Your task to perform on an android device: remove spam from my inbox in the gmail app Image 0: 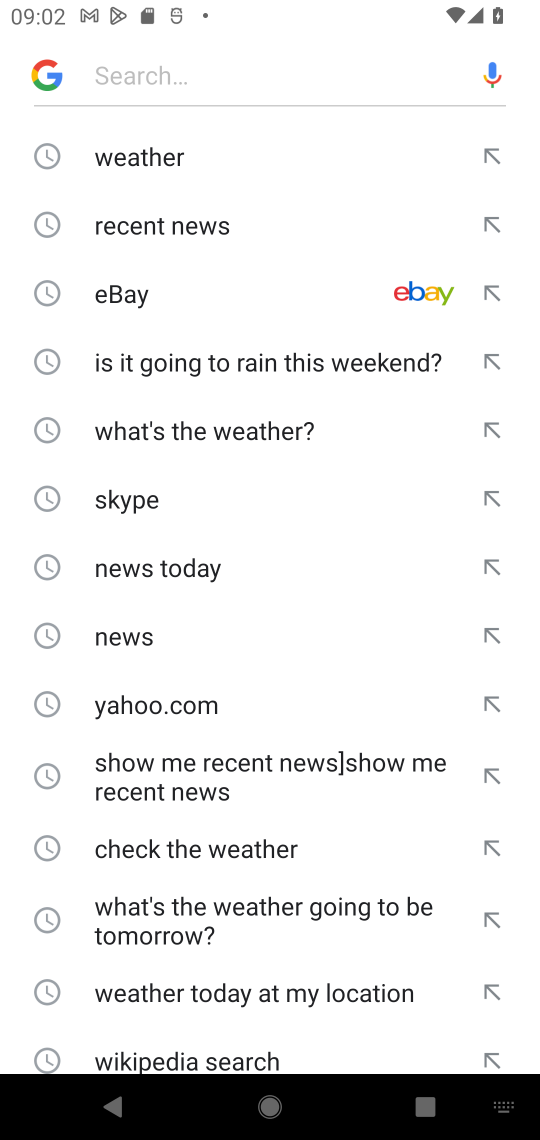
Step 0: press home button
Your task to perform on an android device: remove spam from my inbox in the gmail app Image 1: 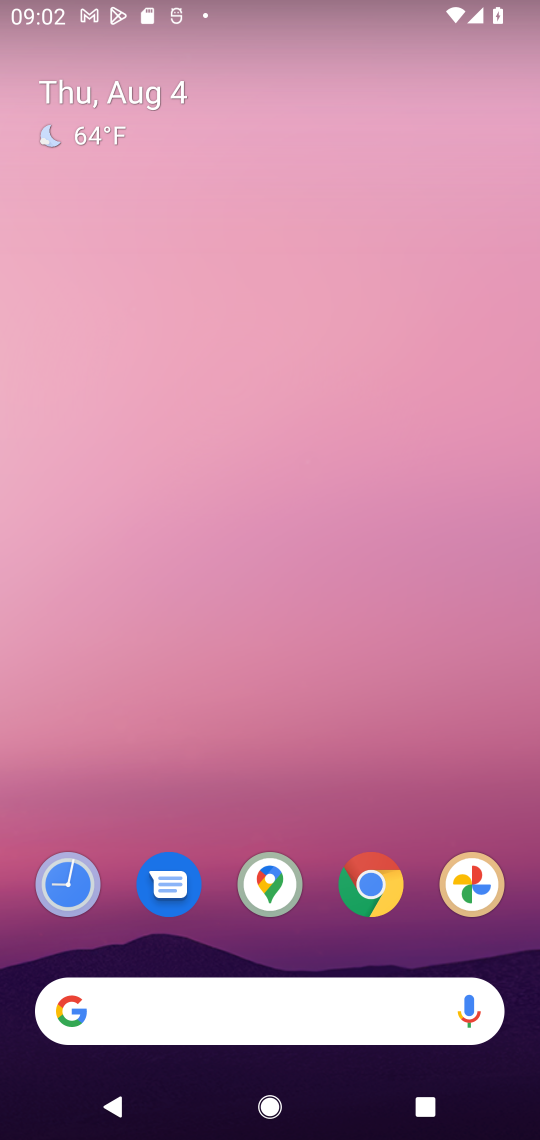
Step 1: drag from (332, 859) to (316, 113)
Your task to perform on an android device: remove spam from my inbox in the gmail app Image 2: 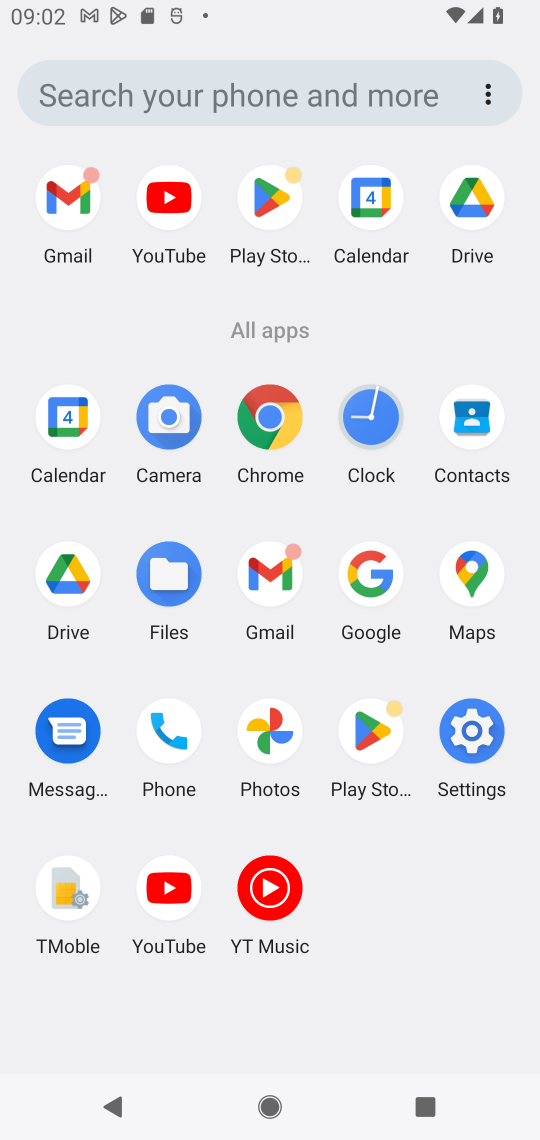
Step 2: click (284, 567)
Your task to perform on an android device: remove spam from my inbox in the gmail app Image 3: 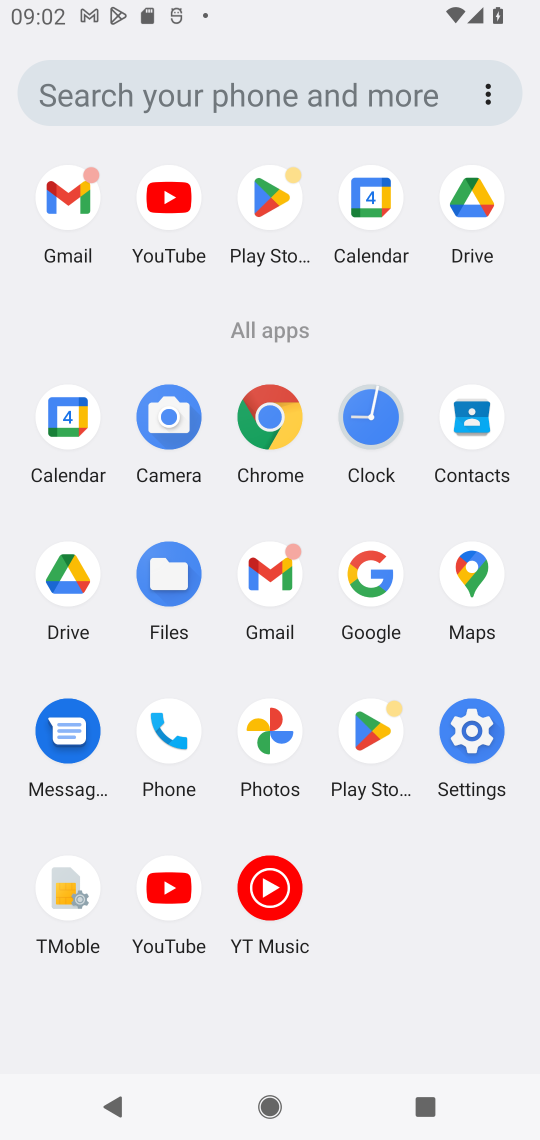
Step 3: click (284, 567)
Your task to perform on an android device: remove spam from my inbox in the gmail app Image 4: 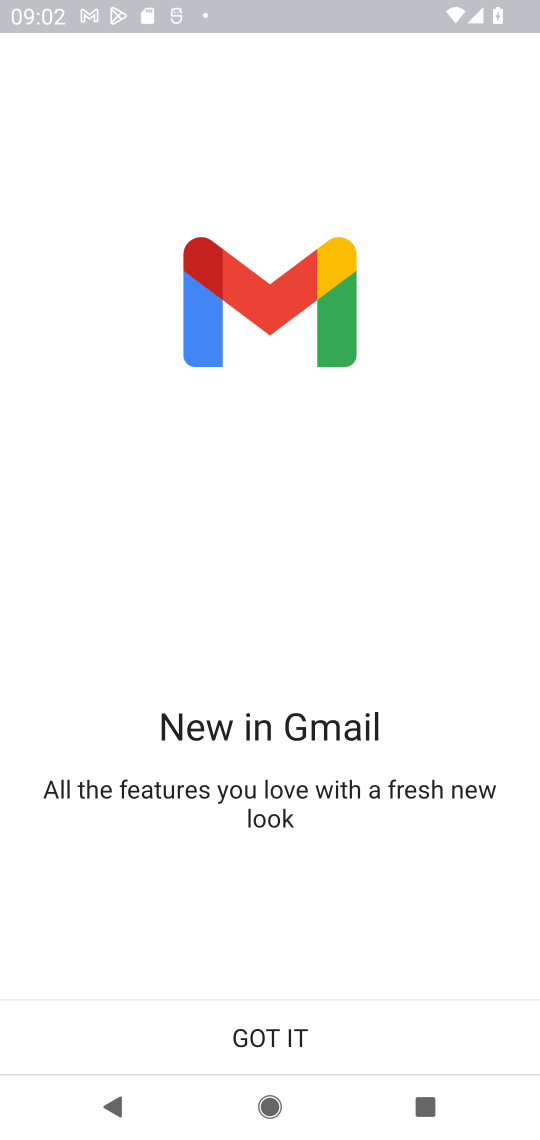
Step 4: click (366, 1044)
Your task to perform on an android device: remove spam from my inbox in the gmail app Image 5: 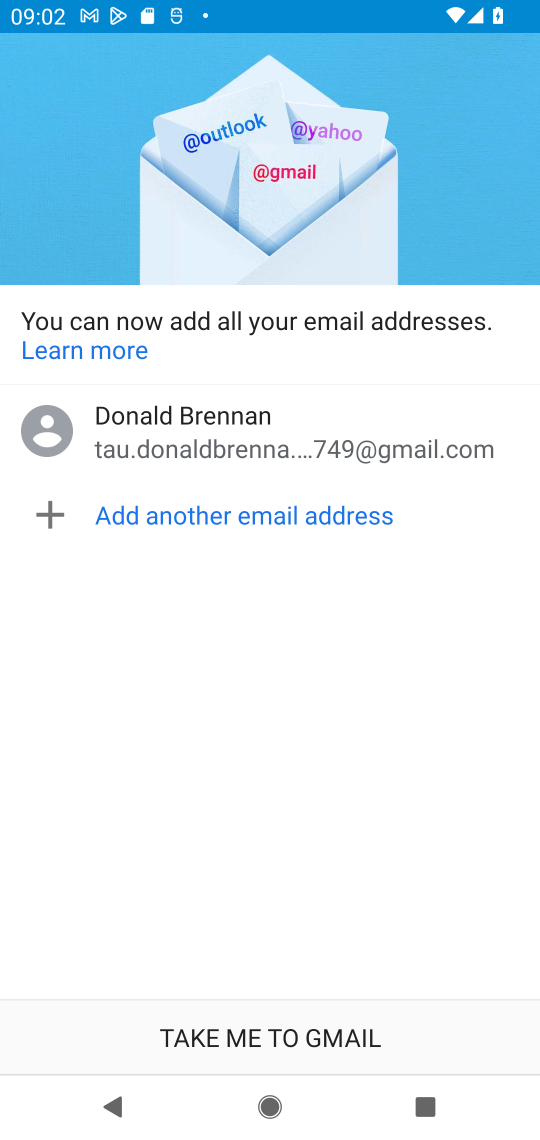
Step 5: click (366, 1044)
Your task to perform on an android device: remove spam from my inbox in the gmail app Image 6: 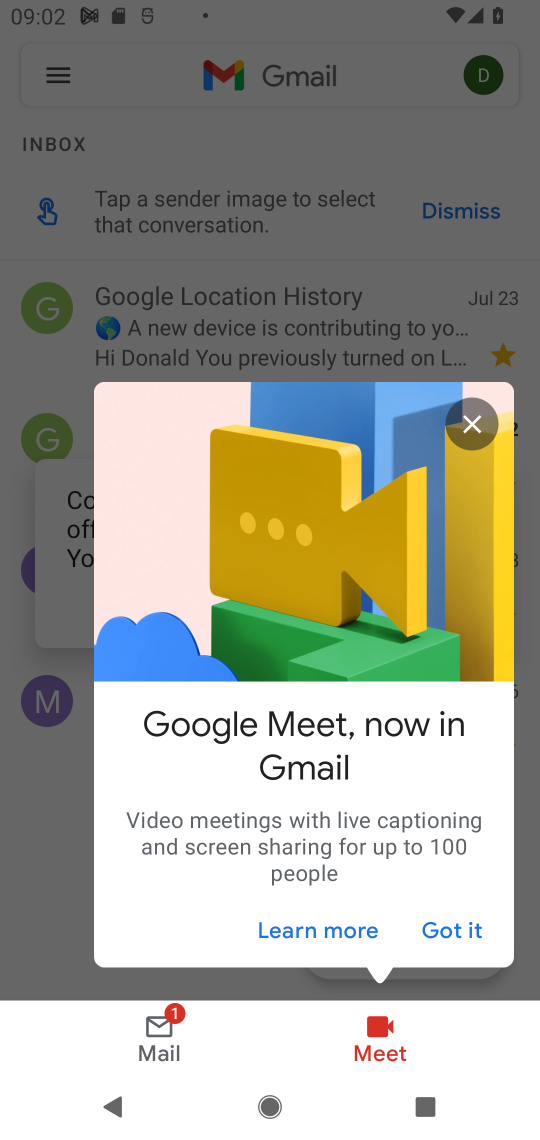
Step 6: click (452, 927)
Your task to perform on an android device: remove spam from my inbox in the gmail app Image 7: 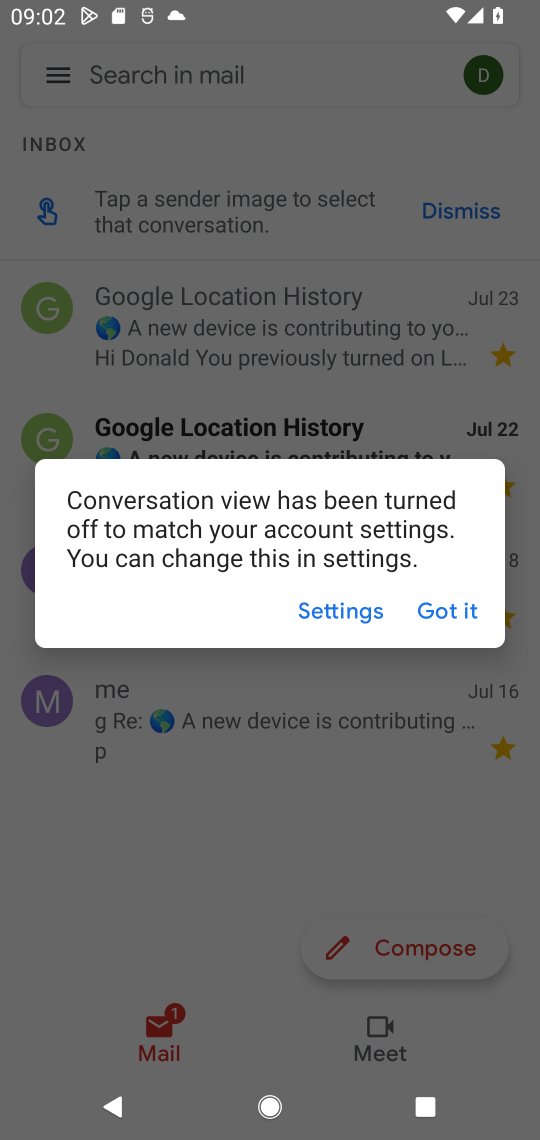
Step 7: click (453, 613)
Your task to perform on an android device: remove spam from my inbox in the gmail app Image 8: 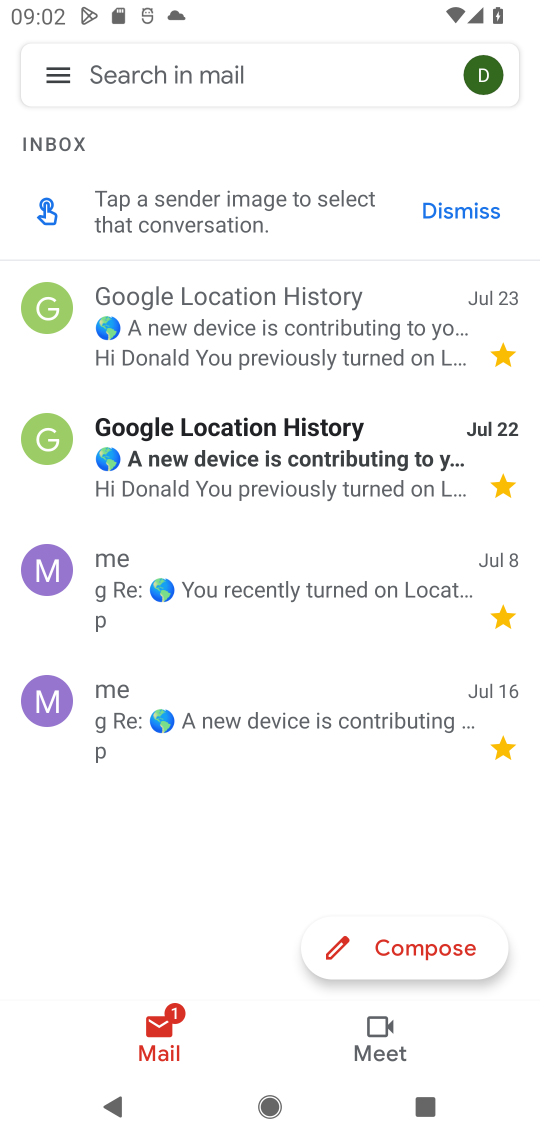
Step 8: click (54, 74)
Your task to perform on an android device: remove spam from my inbox in the gmail app Image 9: 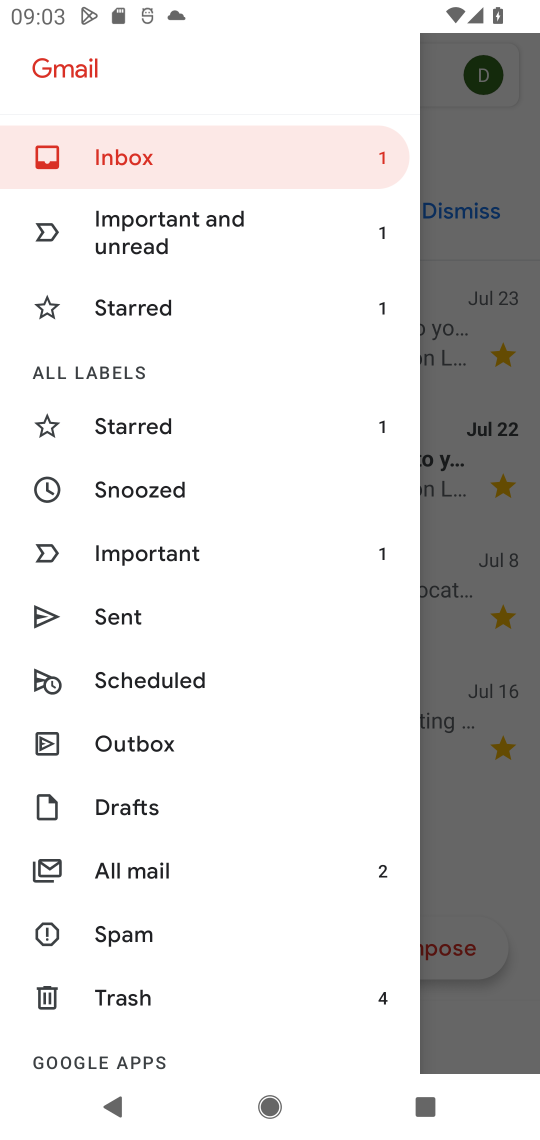
Step 9: click (187, 945)
Your task to perform on an android device: remove spam from my inbox in the gmail app Image 10: 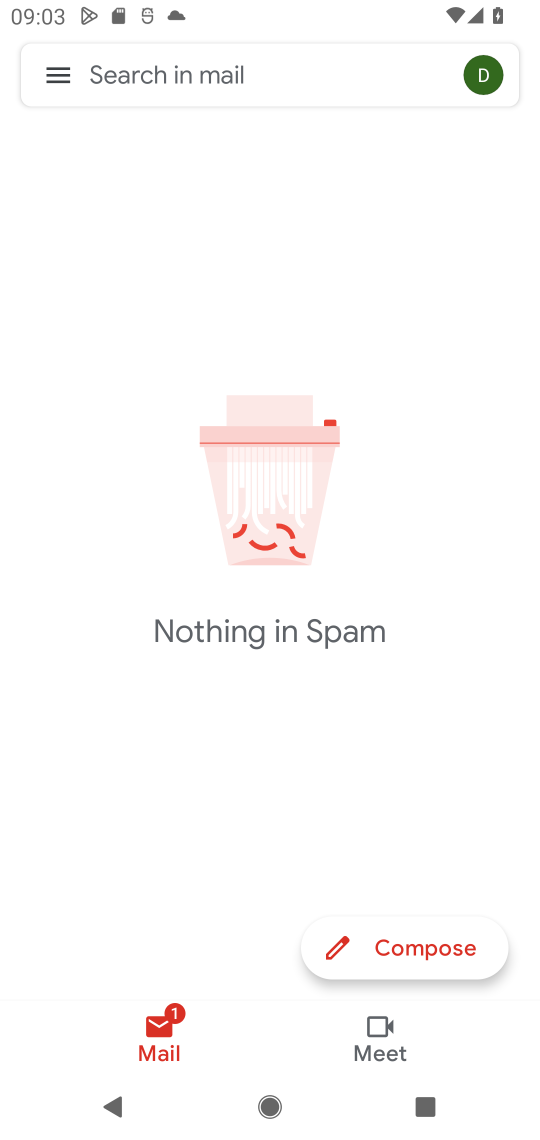
Step 10: task complete